Your task to perform on an android device: Open sound settings Image 0: 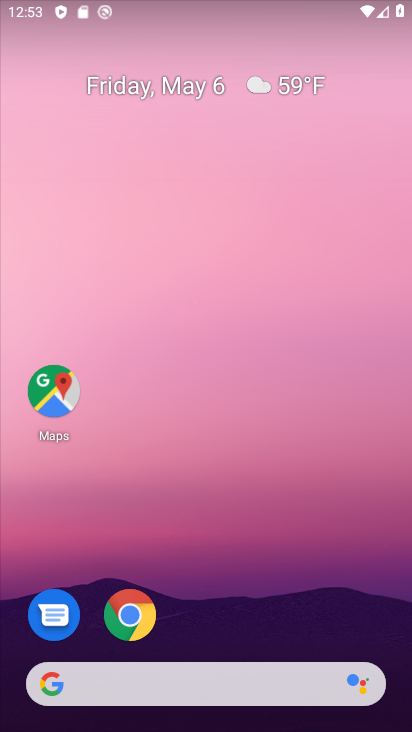
Step 0: drag from (314, 546) to (302, 58)
Your task to perform on an android device: Open sound settings Image 1: 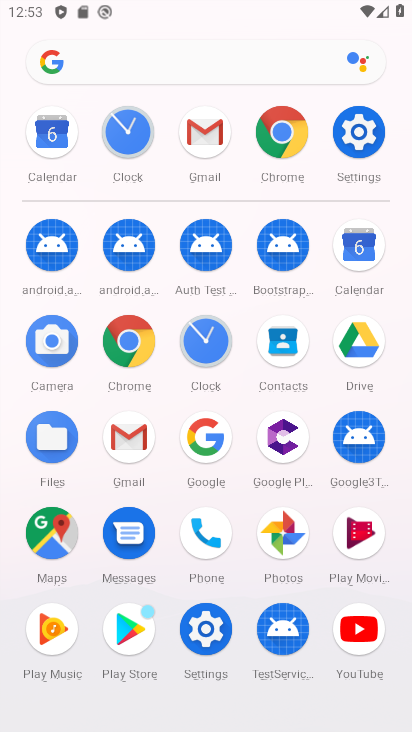
Step 1: click (360, 131)
Your task to perform on an android device: Open sound settings Image 2: 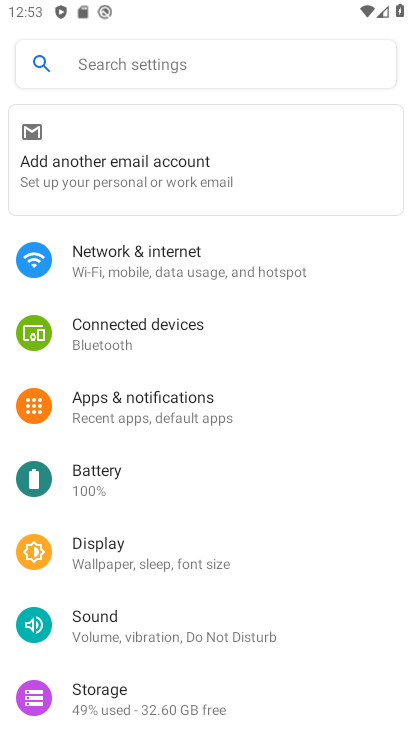
Step 2: click (104, 593)
Your task to perform on an android device: Open sound settings Image 3: 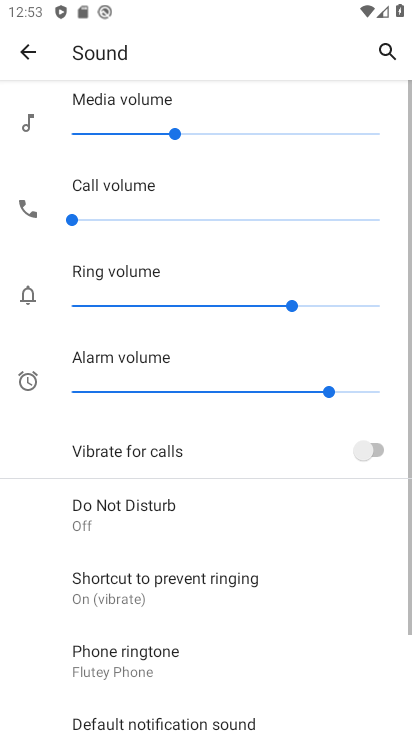
Step 3: click (108, 617)
Your task to perform on an android device: Open sound settings Image 4: 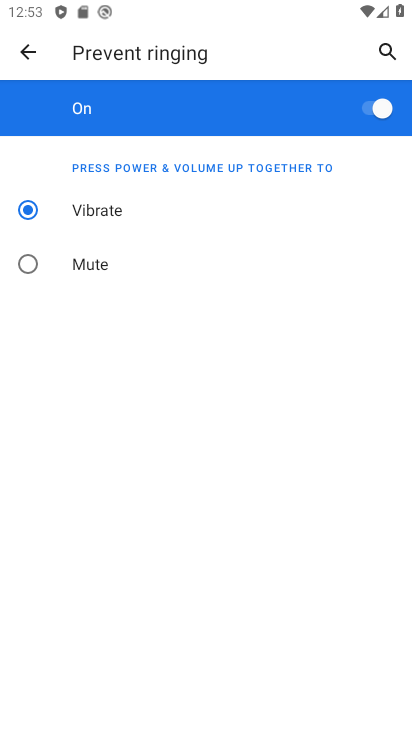
Step 4: task complete